Your task to perform on an android device: Go to Maps Image 0: 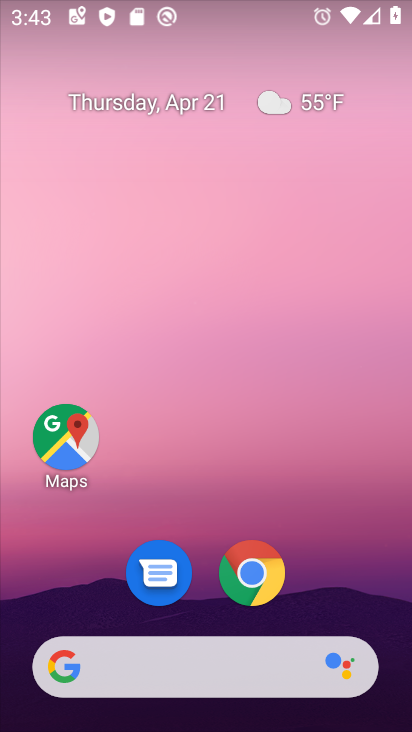
Step 0: click (63, 436)
Your task to perform on an android device: Go to Maps Image 1: 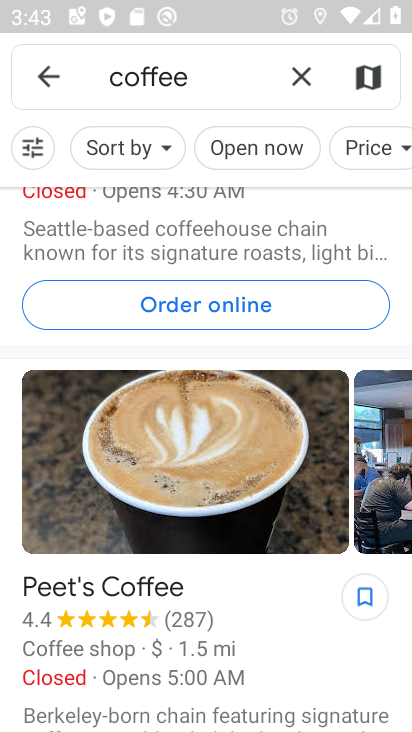
Step 1: task complete